Your task to perform on an android device: open app "Airtel Thanks" (install if not already installed) and enter user name: "acclaimed@inbox.com" and password: "dichotomize" Image 0: 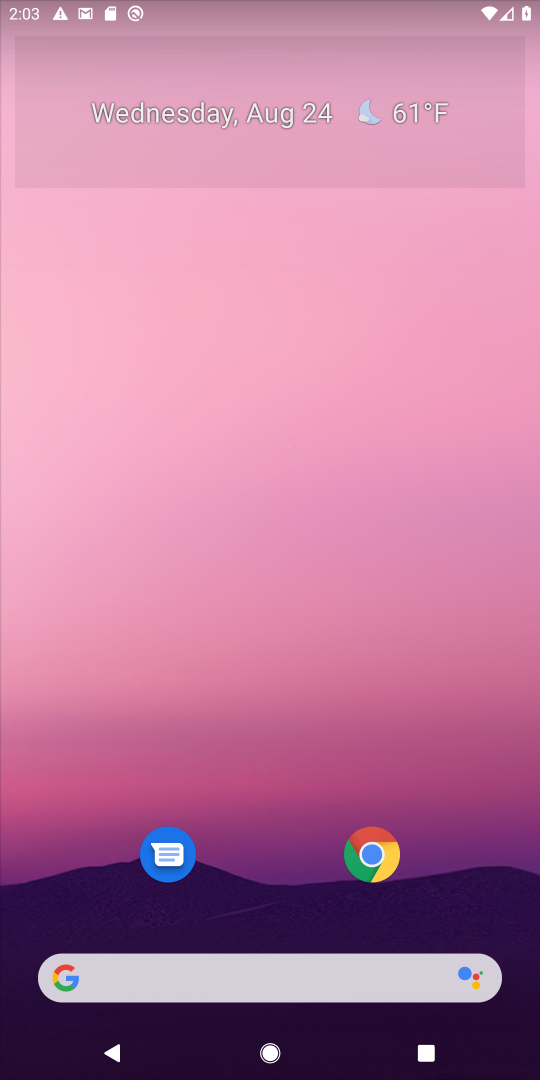
Step 0: press home button
Your task to perform on an android device: open app "Airtel Thanks" (install if not already installed) and enter user name: "acclaimed@inbox.com" and password: "dichotomize" Image 1: 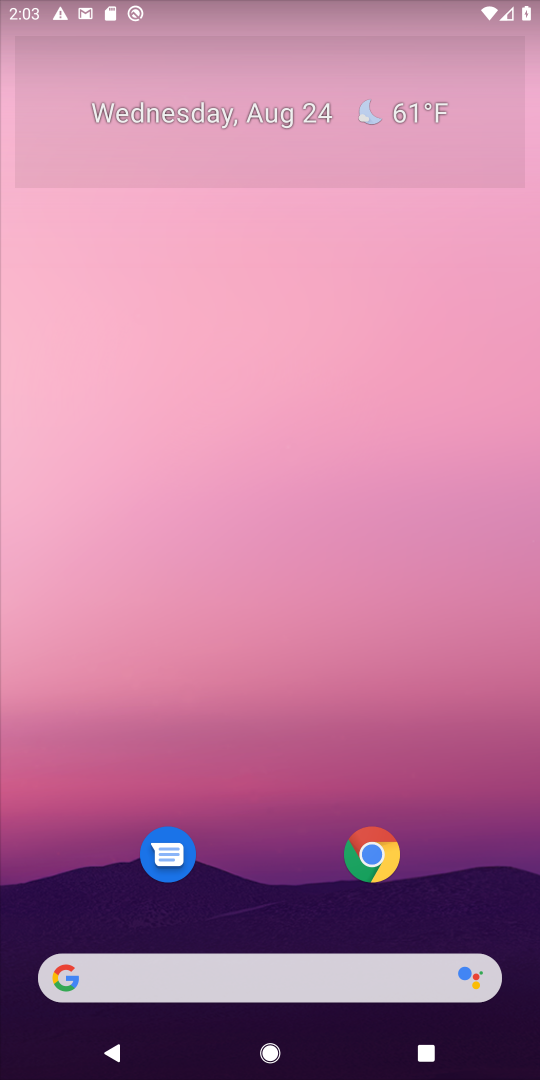
Step 1: drag from (481, 797) to (470, 110)
Your task to perform on an android device: open app "Airtel Thanks" (install if not already installed) and enter user name: "acclaimed@inbox.com" and password: "dichotomize" Image 2: 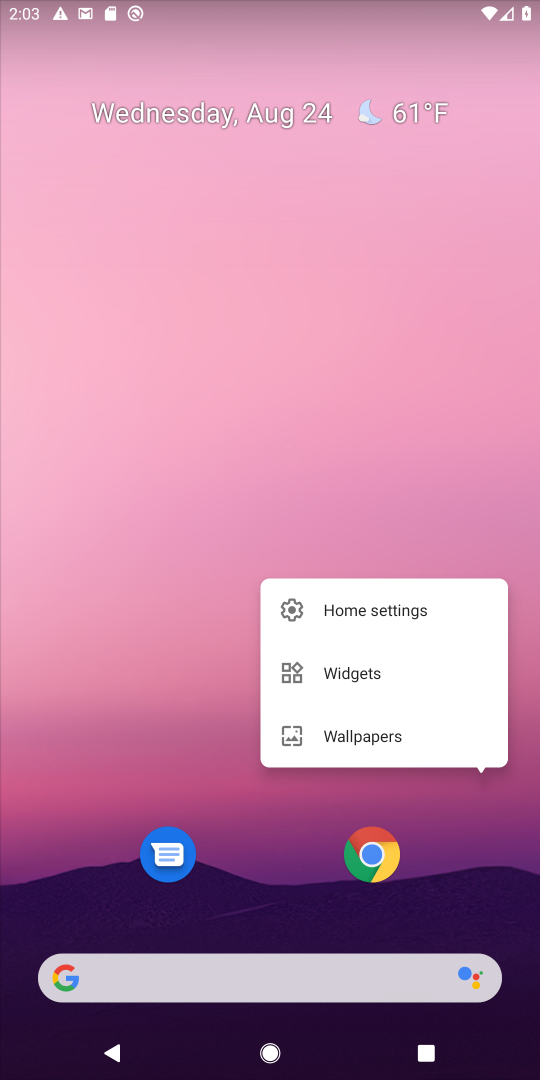
Step 2: click (402, 470)
Your task to perform on an android device: open app "Airtel Thanks" (install if not already installed) and enter user name: "acclaimed@inbox.com" and password: "dichotomize" Image 3: 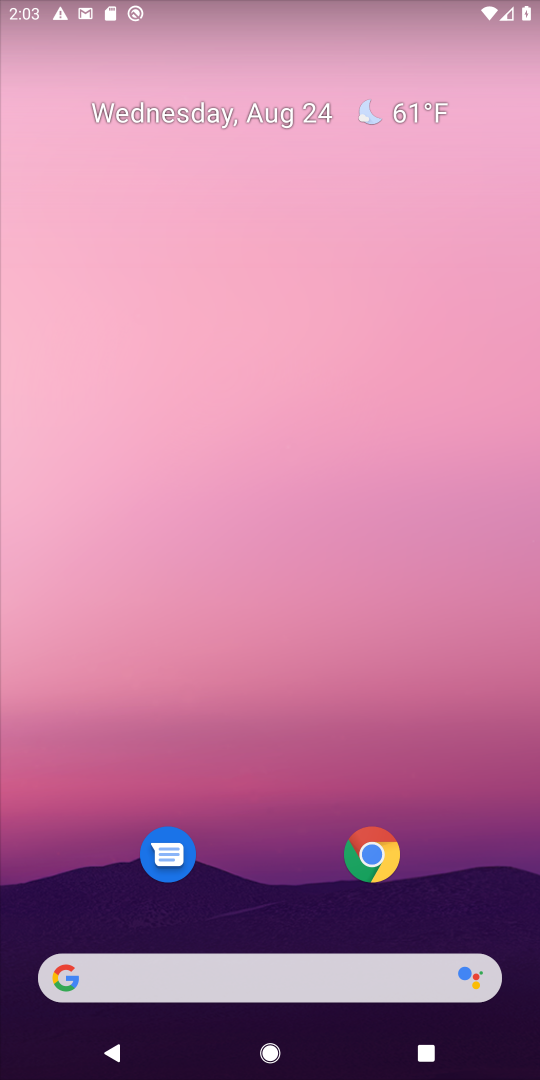
Step 3: drag from (471, 882) to (449, 116)
Your task to perform on an android device: open app "Airtel Thanks" (install if not already installed) and enter user name: "acclaimed@inbox.com" and password: "dichotomize" Image 4: 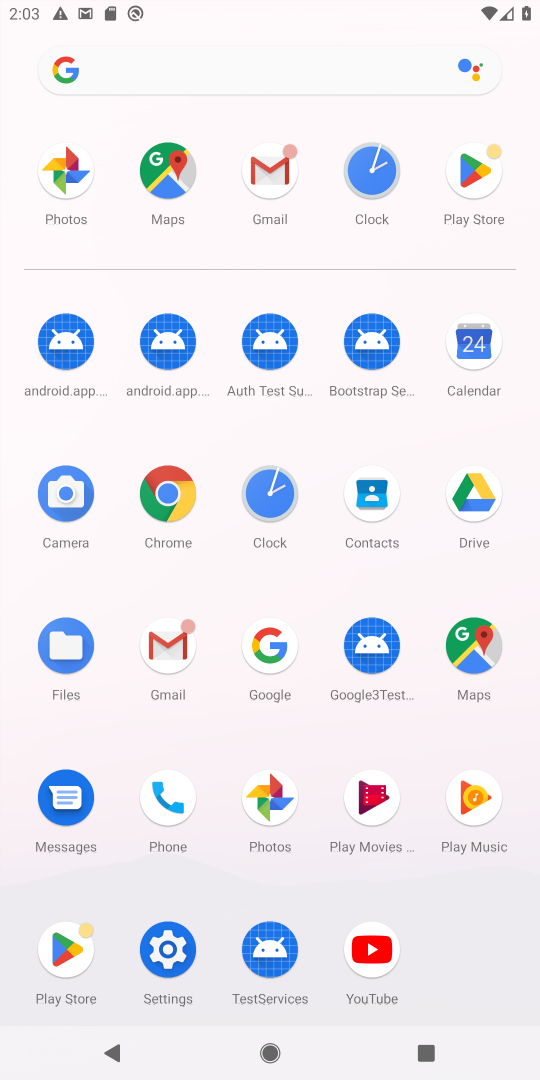
Step 4: click (469, 168)
Your task to perform on an android device: open app "Airtel Thanks" (install if not already installed) and enter user name: "acclaimed@inbox.com" and password: "dichotomize" Image 5: 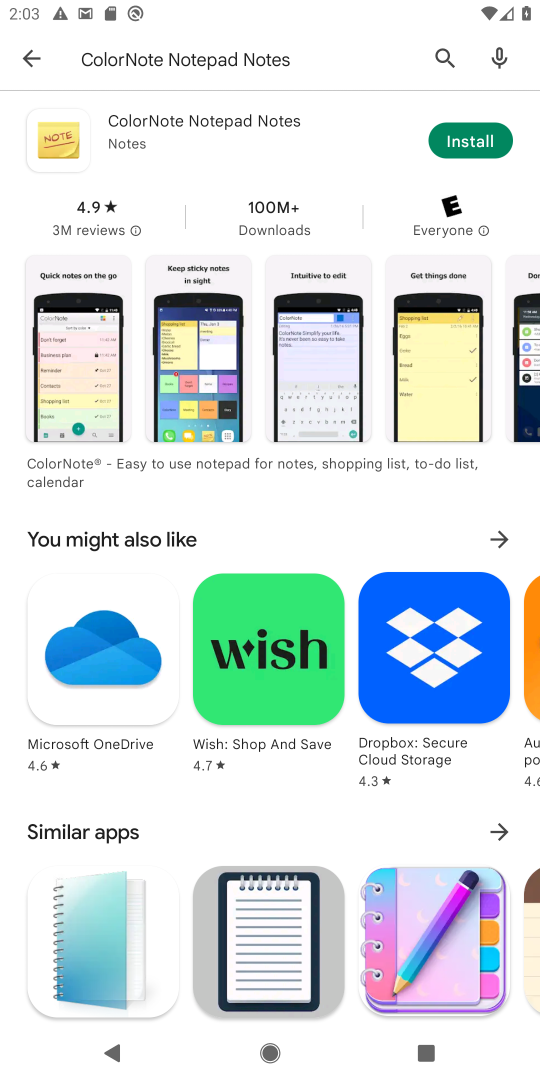
Step 5: press back button
Your task to perform on an android device: open app "Airtel Thanks" (install if not already installed) and enter user name: "acclaimed@inbox.com" and password: "dichotomize" Image 6: 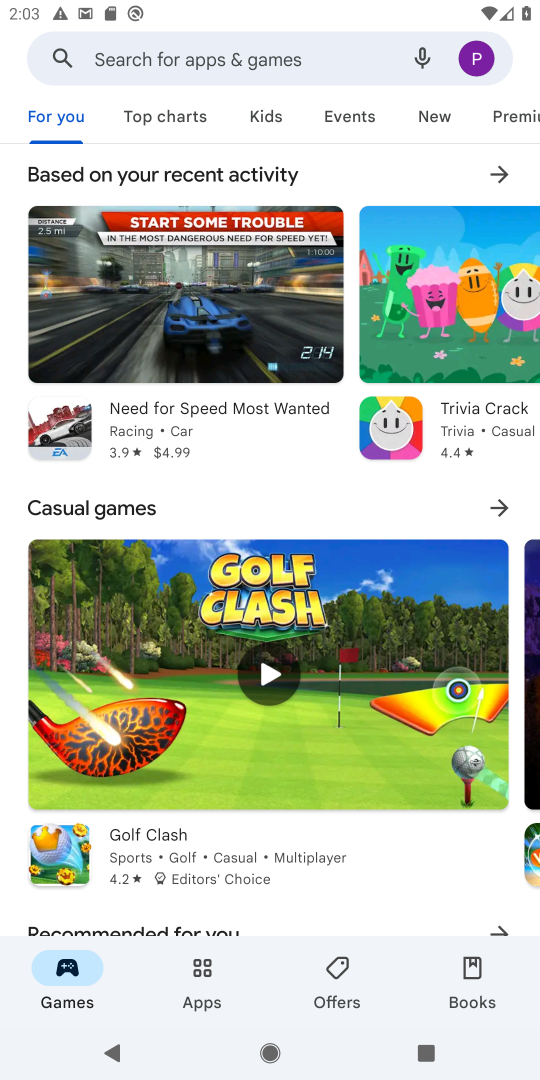
Step 6: click (304, 64)
Your task to perform on an android device: open app "Airtel Thanks" (install if not already installed) and enter user name: "acclaimed@inbox.com" and password: "dichotomize" Image 7: 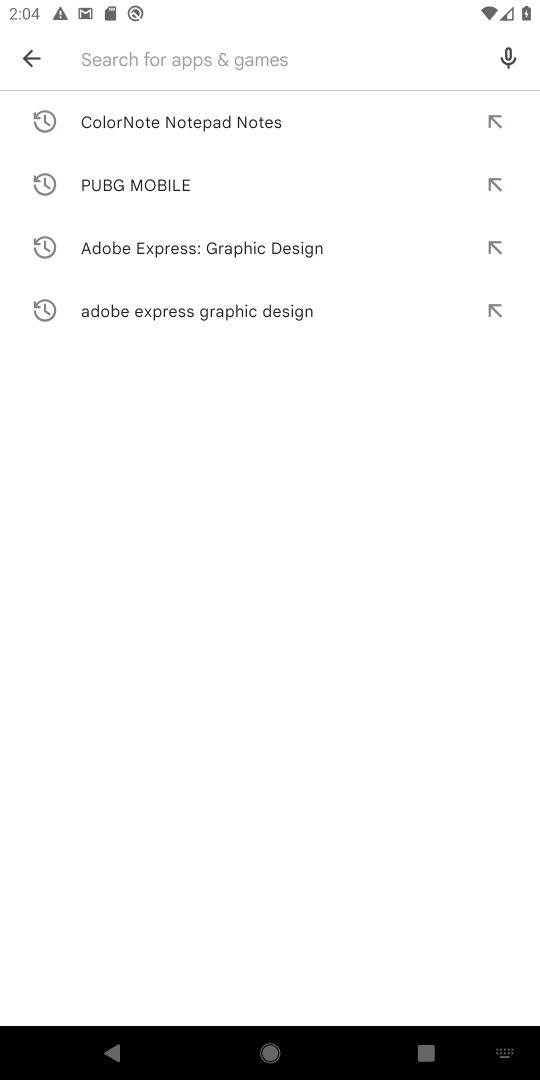
Step 7: type "Airtel Thanks"
Your task to perform on an android device: open app "Airtel Thanks" (install if not already installed) and enter user name: "acclaimed@inbox.com" and password: "dichotomize" Image 8: 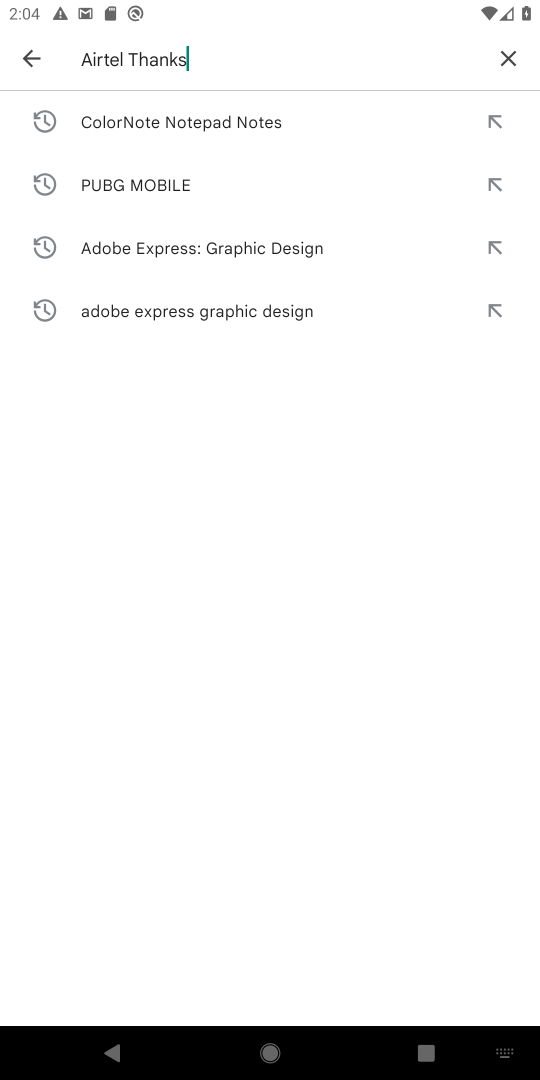
Step 8: press enter
Your task to perform on an android device: open app "Airtel Thanks" (install if not already installed) and enter user name: "acclaimed@inbox.com" and password: "dichotomize" Image 9: 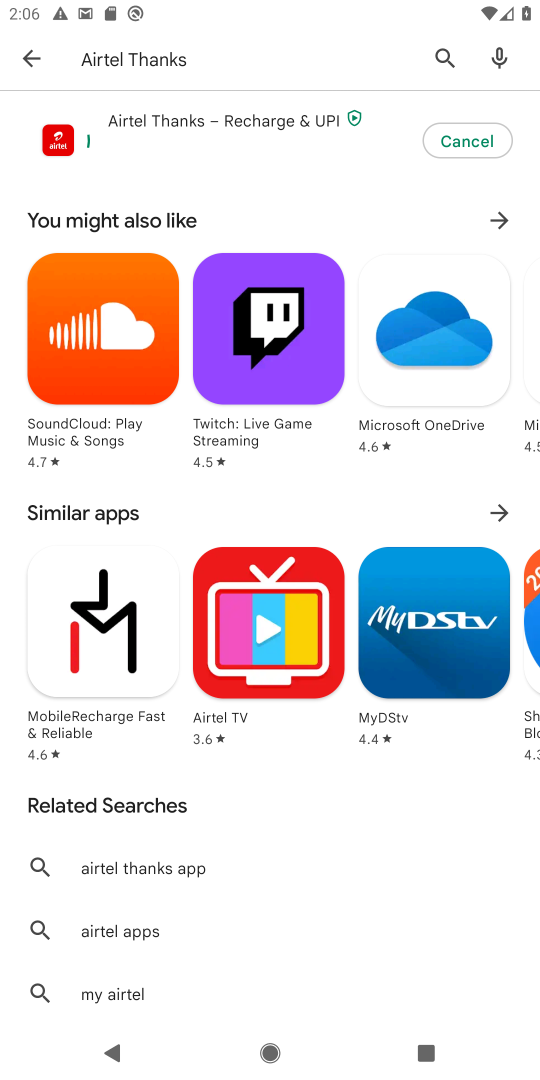
Step 9: task complete